Your task to perform on an android device: change the clock display to show seconds Image 0: 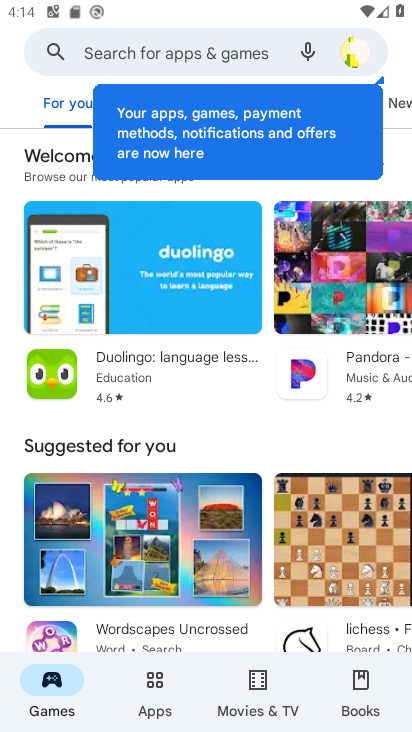
Step 0: press home button
Your task to perform on an android device: change the clock display to show seconds Image 1: 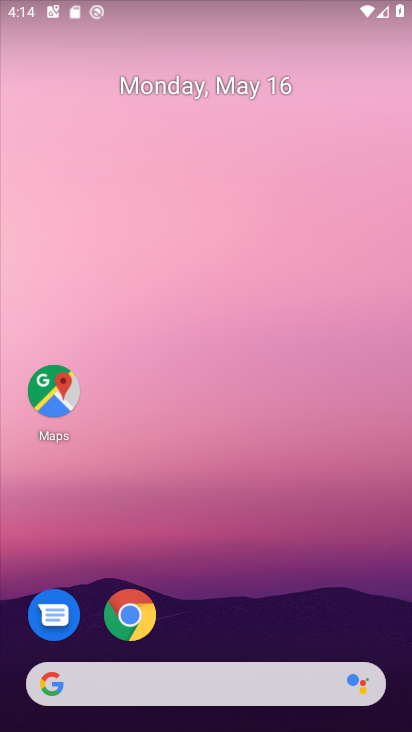
Step 1: drag from (261, 617) to (311, 169)
Your task to perform on an android device: change the clock display to show seconds Image 2: 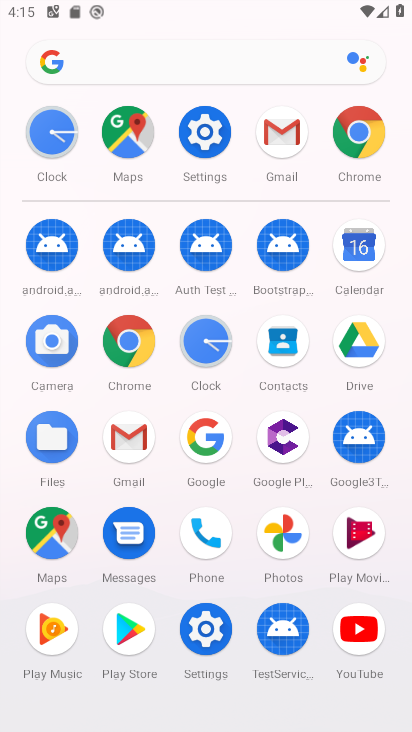
Step 2: click (212, 344)
Your task to perform on an android device: change the clock display to show seconds Image 3: 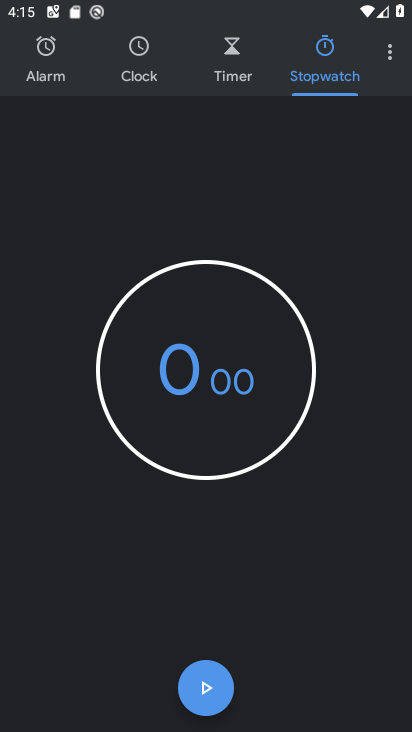
Step 3: click (385, 61)
Your task to perform on an android device: change the clock display to show seconds Image 4: 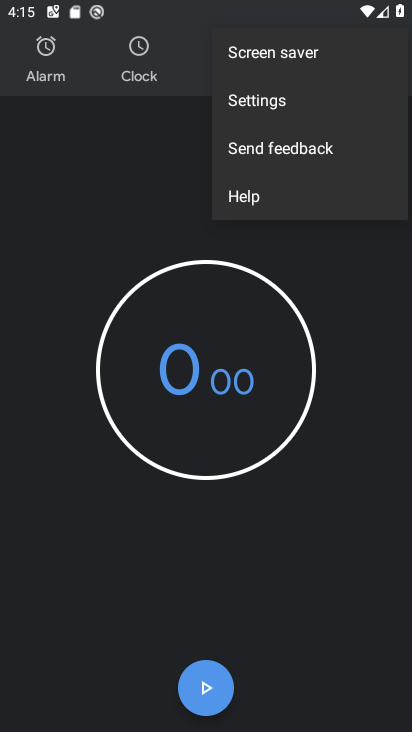
Step 4: click (270, 113)
Your task to perform on an android device: change the clock display to show seconds Image 5: 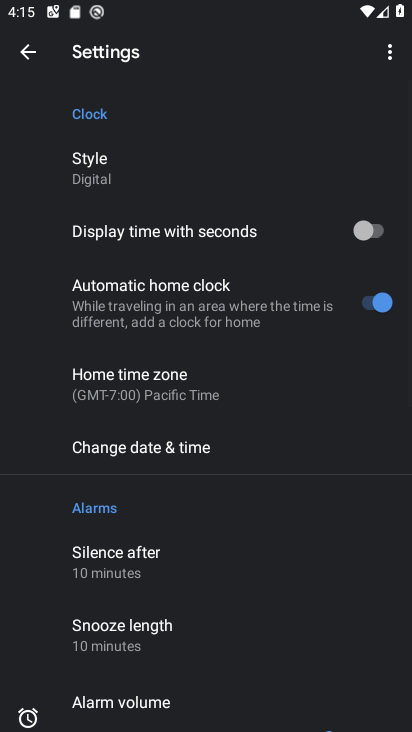
Step 5: click (375, 242)
Your task to perform on an android device: change the clock display to show seconds Image 6: 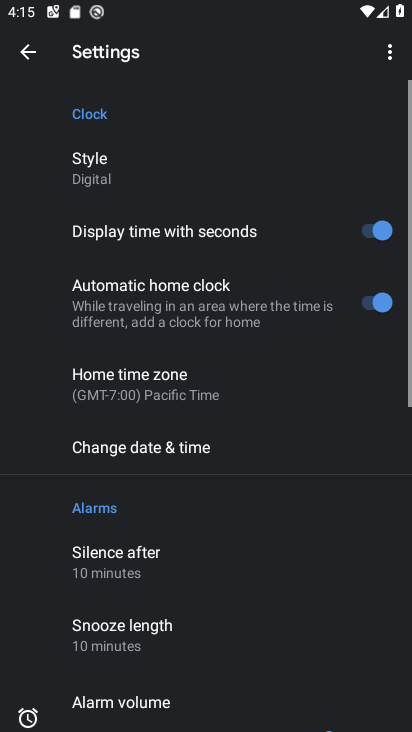
Step 6: task complete